Your task to perform on an android device: Open calendar and show me the second week of next month Image 0: 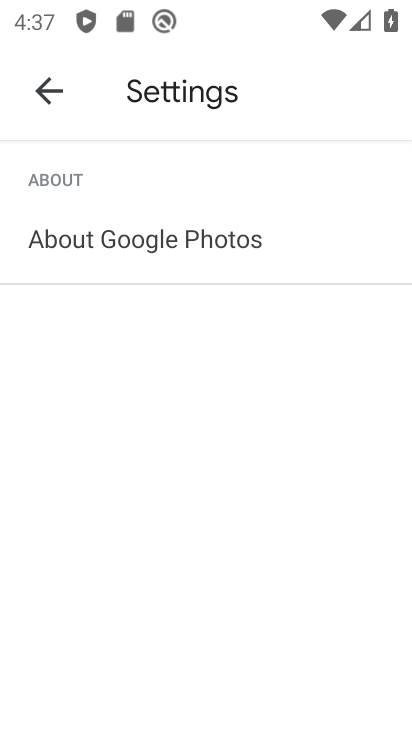
Step 0: press home button
Your task to perform on an android device: Open calendar and show me the second week of next month Image 1: 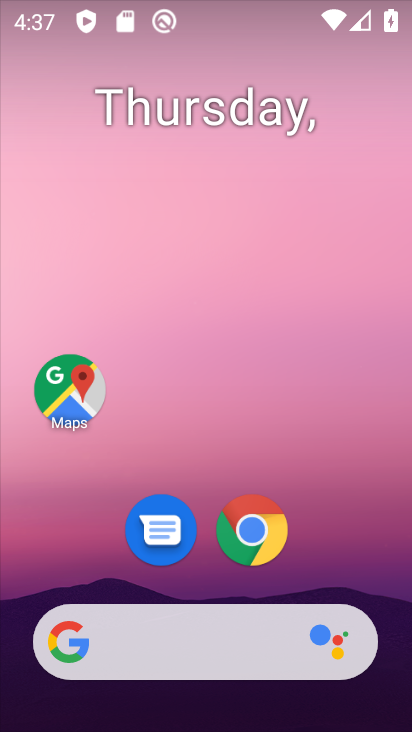
Step 1: drag from (302, 608) to (266, 4)
Your task to perform on an android device: Open calendar and show me the second week of next month Image 2: 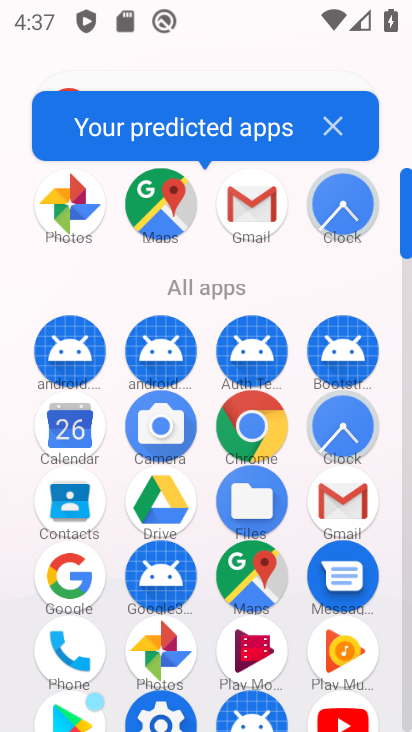
Step 2: click (88, 425)
Your task to perform on an android device: Open calendar and show me the second week of next month Image 3: 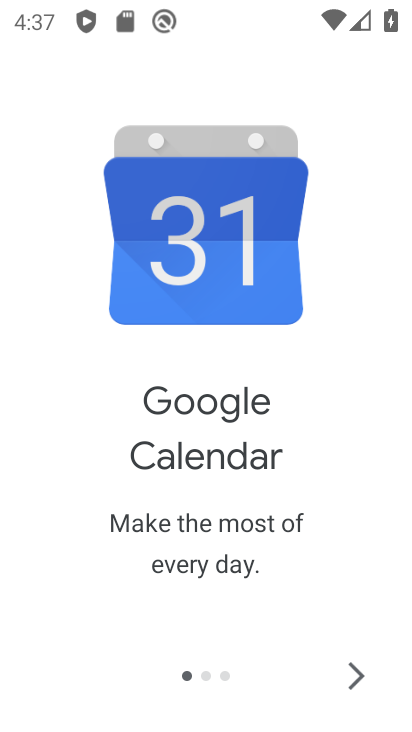
Step 3: click (356, 683)
Your task to perform on an android device: Open calendar and show me the second week of next month Image 4: 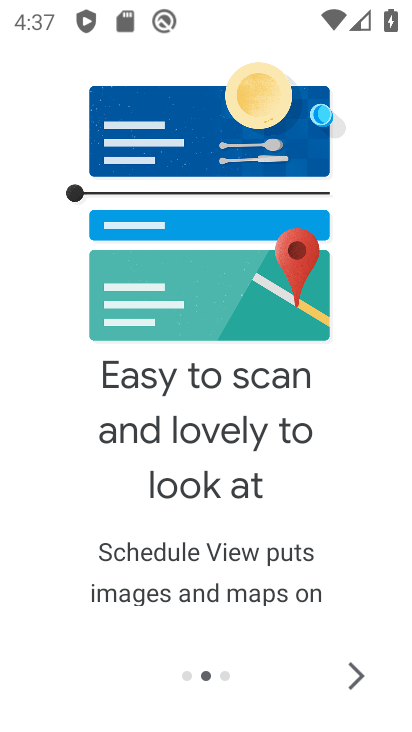
Step 4: click (367, 674)
Your task to perform on an android device: Open calendar and show me the second week of next month Image 5: 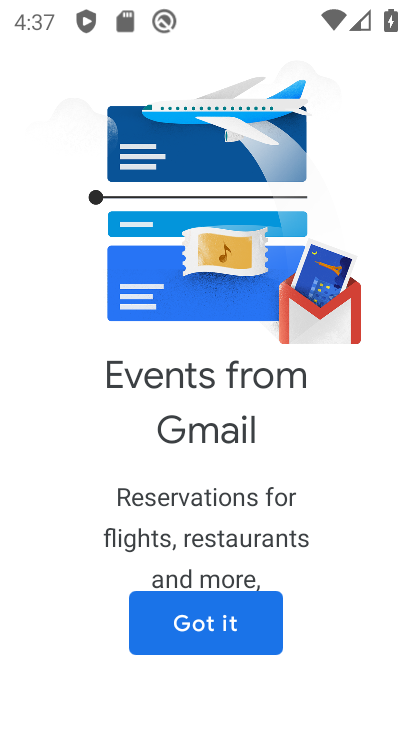
Step 5: click (347, 675)
Your task to perform on an android device: Open calendar and show me the second week of next month Image 6: 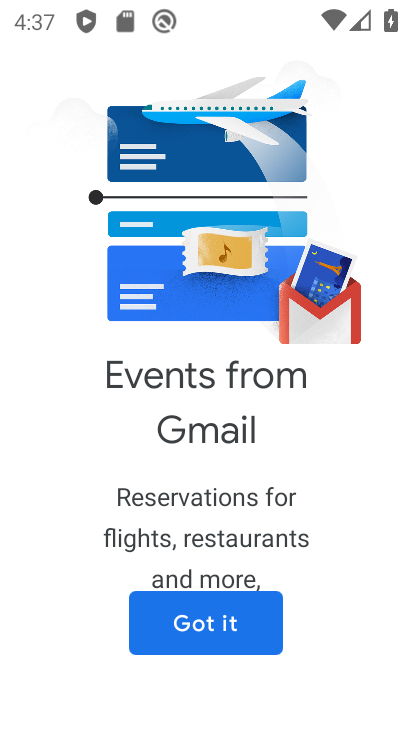
Step 6: click (217, 642)
Your task to perform on an android device: Open calendar and show me the second week of next month Image 7: 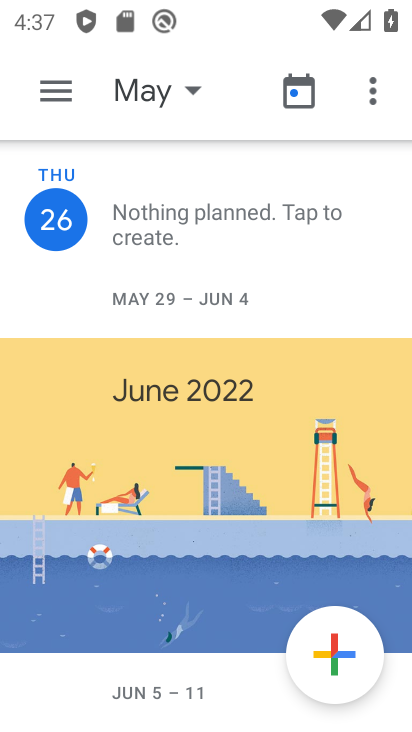
Step 7: click (199, 88)
Your task to perform on an android device: Open calendar and show me the second week of next month Image 8: 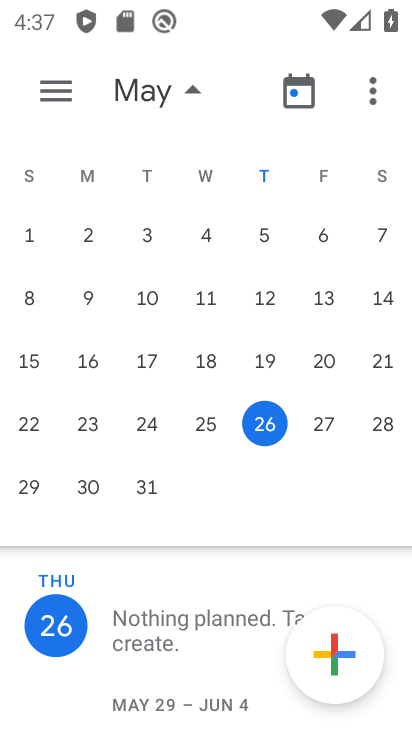
Step 8: drag from (342, 304) to (10, 386)
Your task to perform on an android device: Open calendar and show me the second week of next month Image 9: 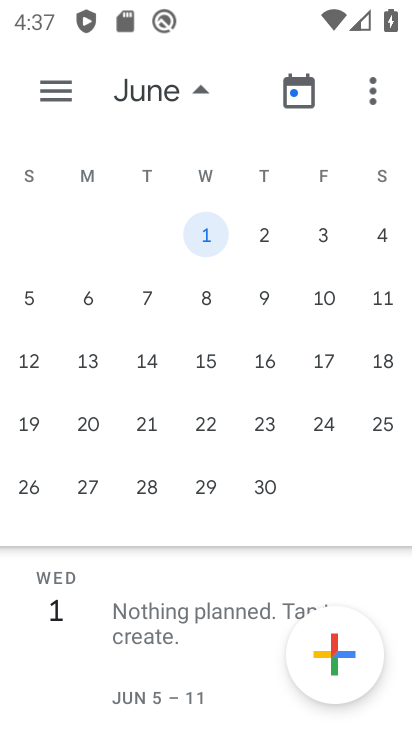
Step 9: click (263, 304)
Your task to perform on an android device: Open calendar and show me the second week of next month Image 10: 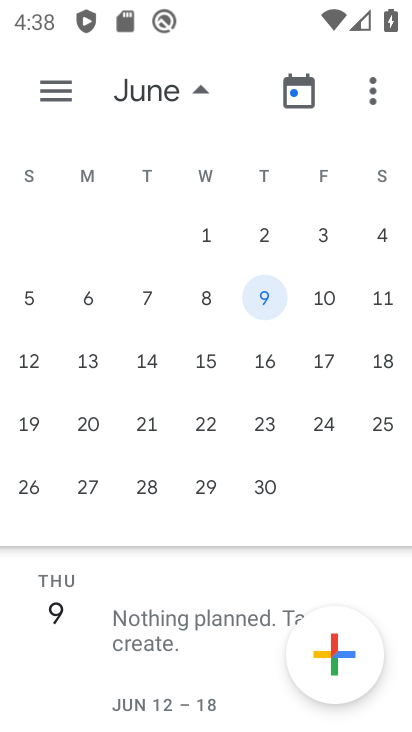
Step 10: task complete